Your task to perform on an android device: Open Chrome and go to the settings page Image 0: 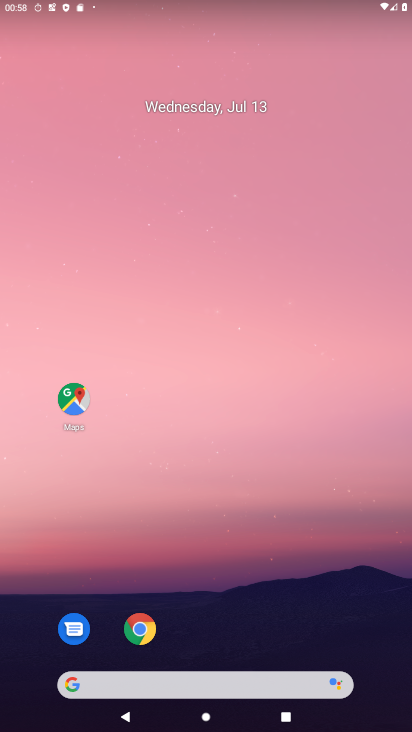
Step 0: click (152, 626)
Your task to perform on an android device: Open Chrome and go to the settings page Image 1: 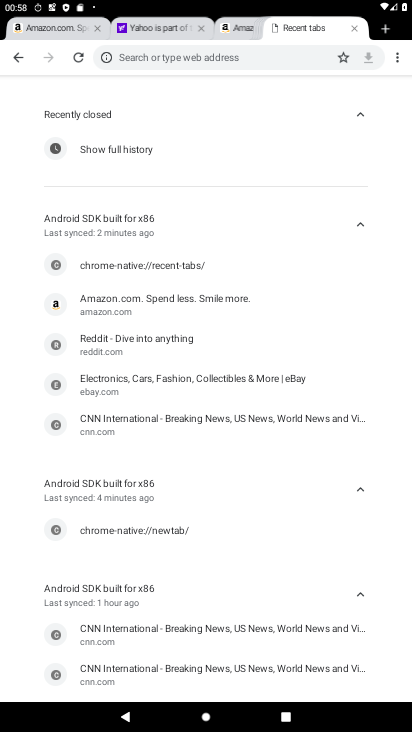
Step 1: click (395, 54)
Your task to perform on an android device: Open Chrome and go to the settings page Image 2: 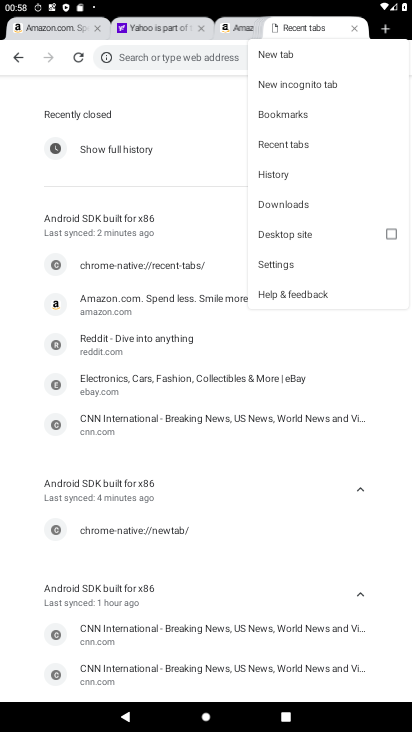
Step 2: click (290, 271)
Your task to perform on an android device: Open Chrome and go to the settings page Image 3: 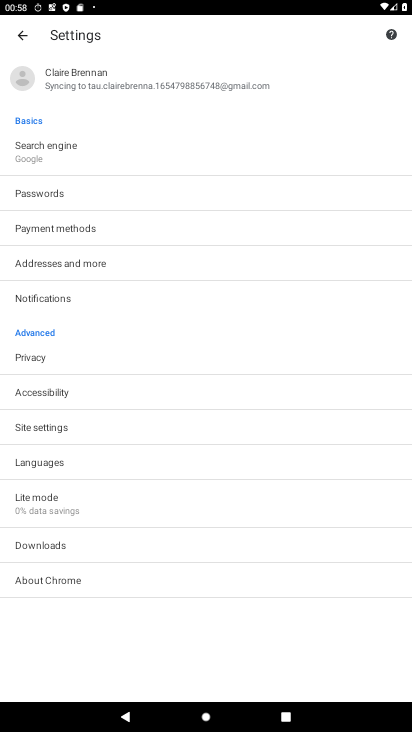
Step 3: task complete